Your task to perform on an android device: Find coffee shops on Maps Image 0: 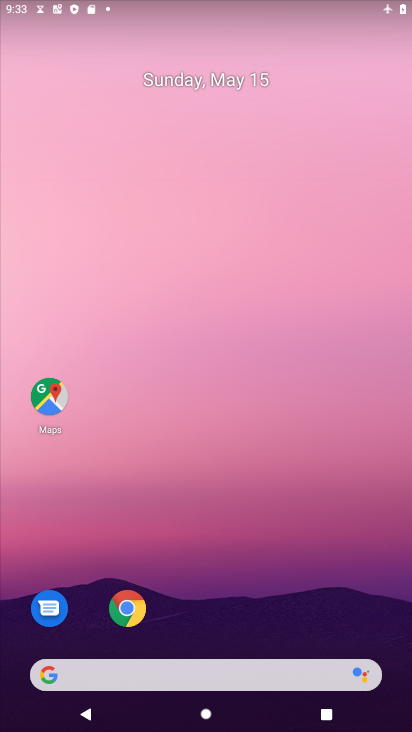
Step 0: drag from (308, 530) to (319, 57)
Your task to perform on an android device: Find coffee shops on Maps Image 1: 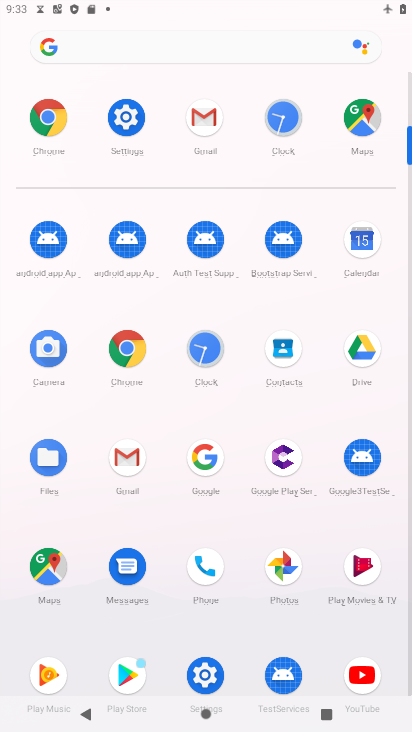
Step 1: click (359, 131)
Your task to perform on an android device: Find coffee shops on Maps Image 2: 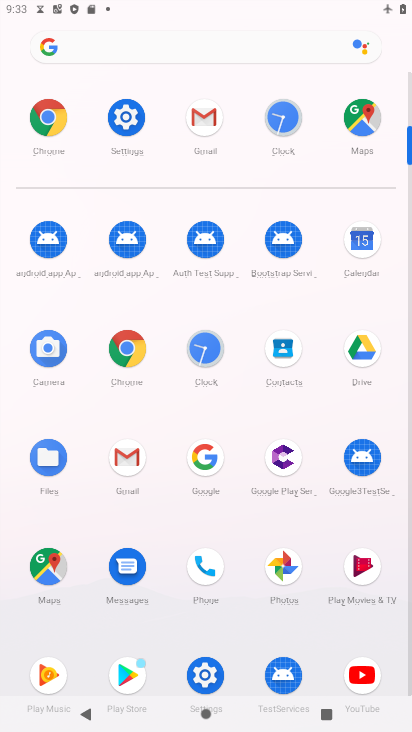
Step 2: click (361, 125)
Your task to perform on an android device: Find coffee shops on Maps Image 3: 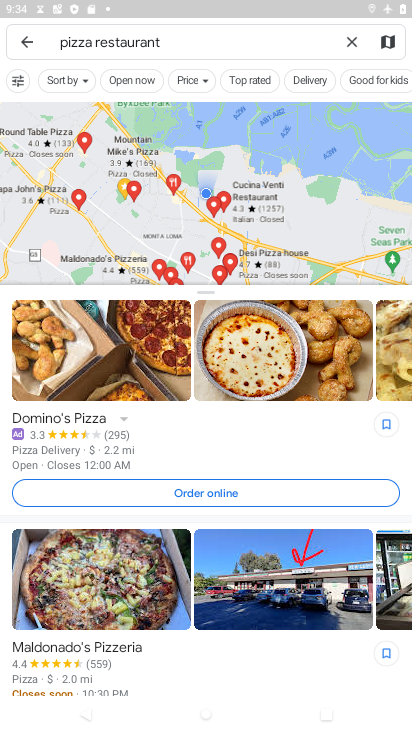
Step 3: click (359, 48)
Your task to perform on an android device: Find coffee shops on Maps Image 4: 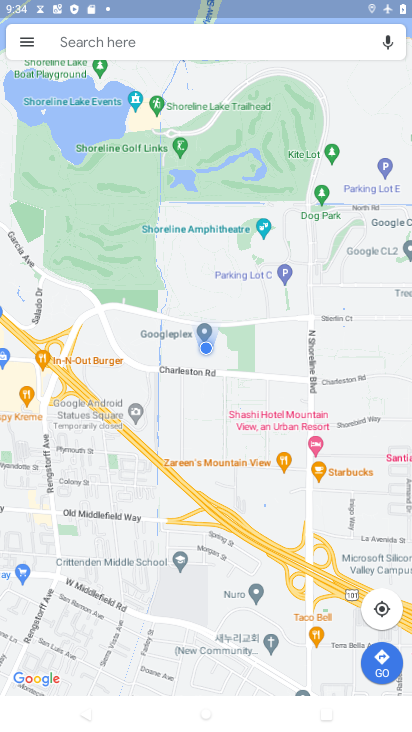
Step 4: click (99, 41)
Your task to perform on an android device: Find coffee shops on Maps Image 5: 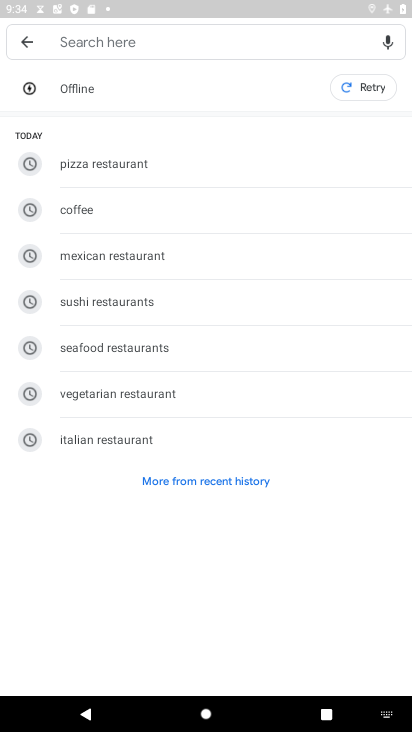
Step 5: type "coffee"
Your task to perform on an android device: Find coffee shops on Maps Image 6: 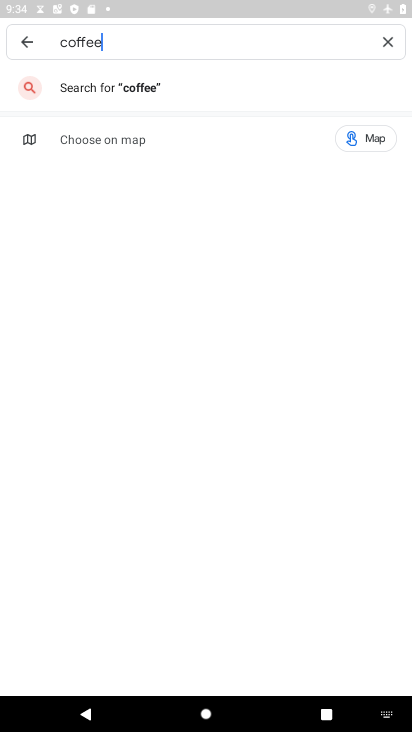
Step 6: press enter
Your task to perform on an android device: Find coffee shops on Maps Image 7: 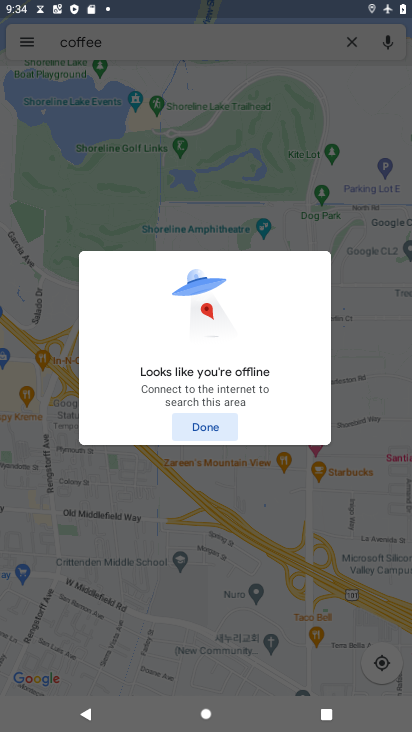
Step 7: task complete